Your task to perform on an android device: toggle airplane mode Image 0: 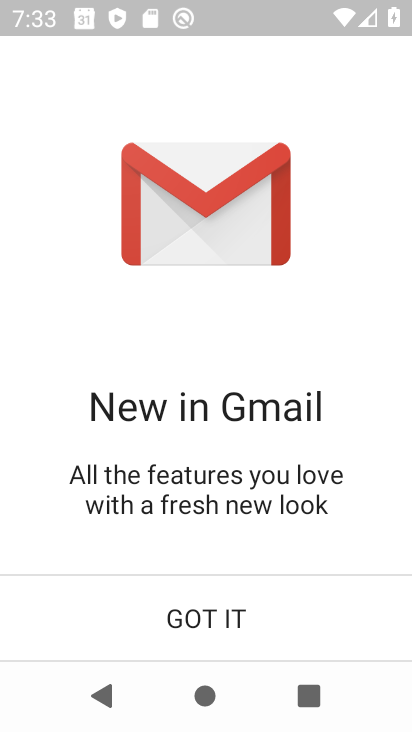
Step 0: press home button
Your task to perform on an android device: toggle airplane mode Image 1: 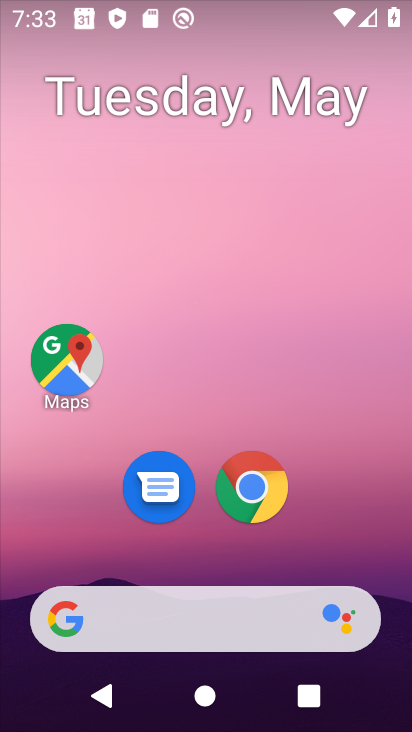
Step 1: drag from (314, 560) to (342, 286)
Your task to perform on an android device: toggle airplane mode Image 2: 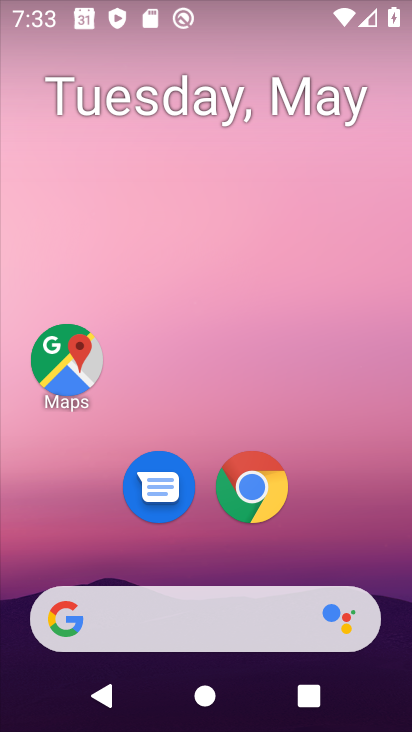
Step 2: drag from (389, 561) to (393, 243)
Your task to perform on an android device: toggle airplane mode Image 3: 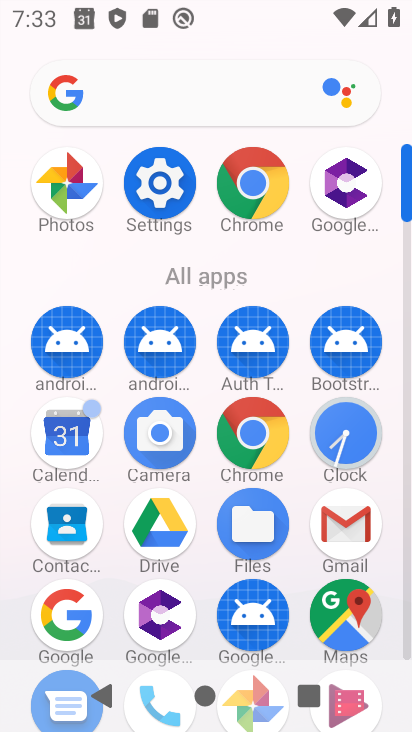
Step 3: click (158, 206)
Your task to perform on an android device: toggle airplane mode Image 4: 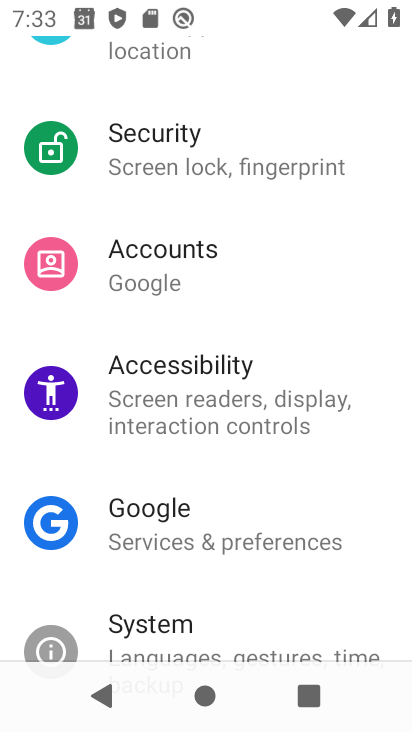
Step 4: drag from (311, 292) to (322, 383)
Your task to perform on an android device: toggle airplane mode Image 5: 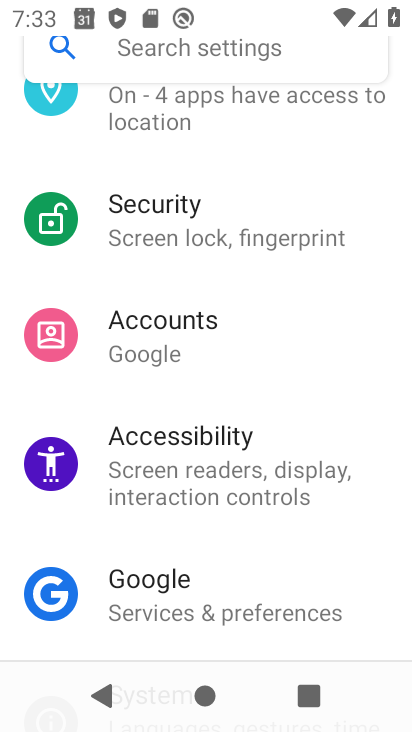
Step 5: drag from (361, 265) to (364, 364)
Your task to perform on an android device: toggle airplane mode Image 6: 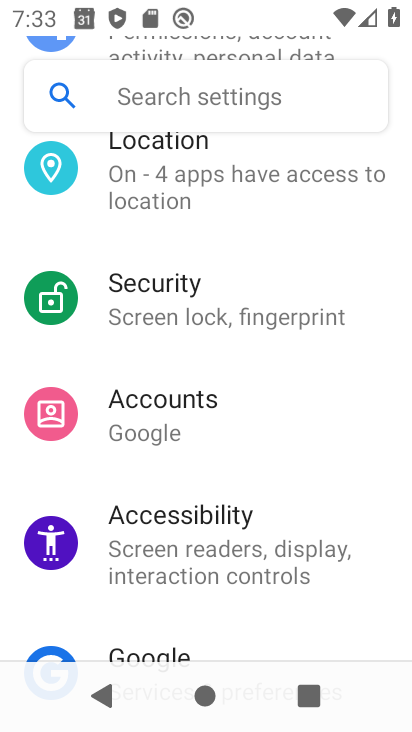
Step 6: drag from (363, 239) to (361, 375)
Your task to perform on an android device: toggle airplane mode Image 7: 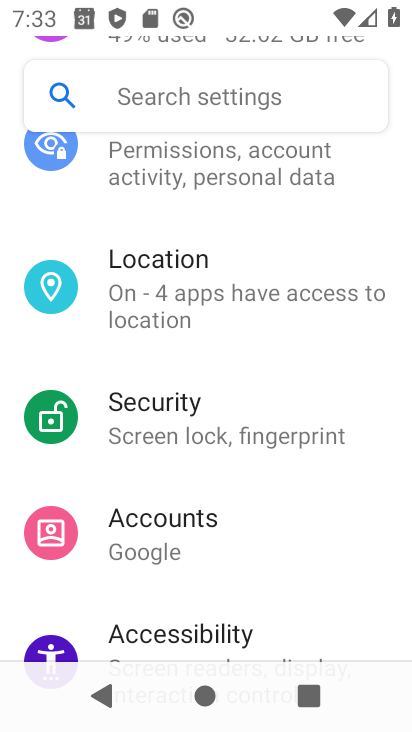
Step 7: drag from (373, 247) to (375, 402)
Your task to perform on an android device: toggle airplane mode Image 8: 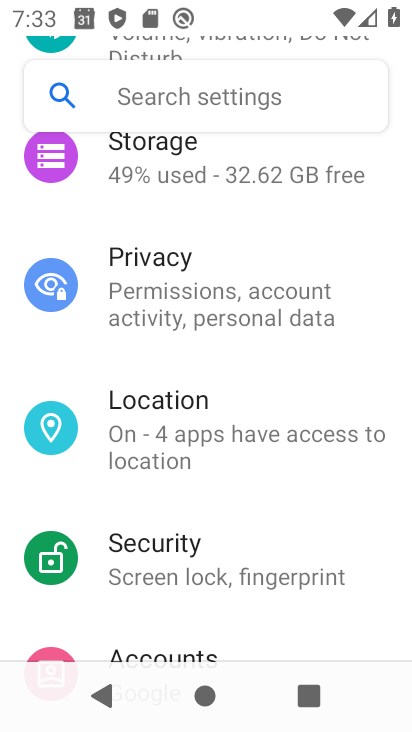
Step 8: drag from (367, 275) to (373, 380)
Your task to perform on an android device: toggle airplane mode Image 9: 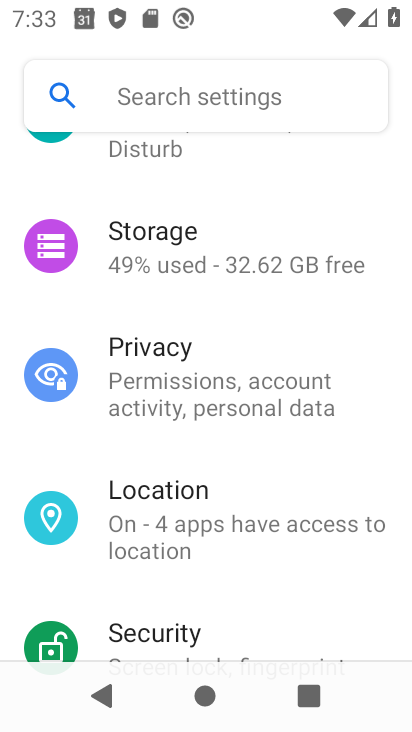
Step 9: drag from (372, 211) to (357, 346)
Your task to perform on an android device: toggle airplane mode Image 10: 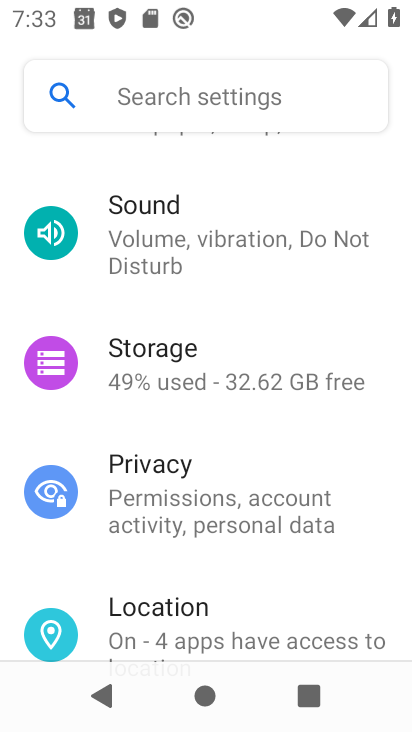
Step 10: drag from (383, 210) to (387, 321)
Your task to perform on an android device: toggle airplane mode Image 11: 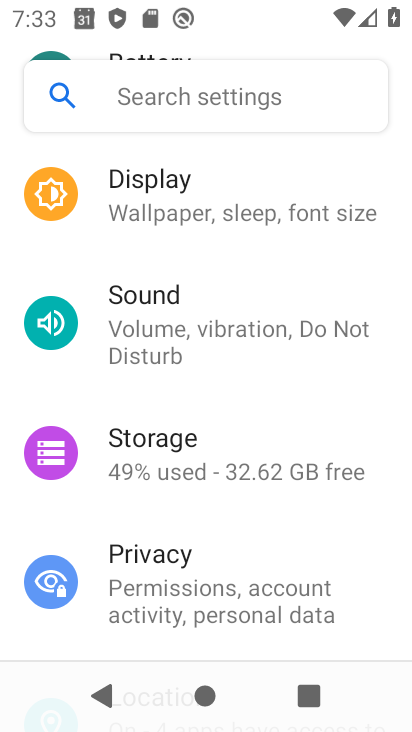
Step 11: drag from (389, 243) to (387, 346)
Your task to perform on an android device: toggle airplane mode Image 12: 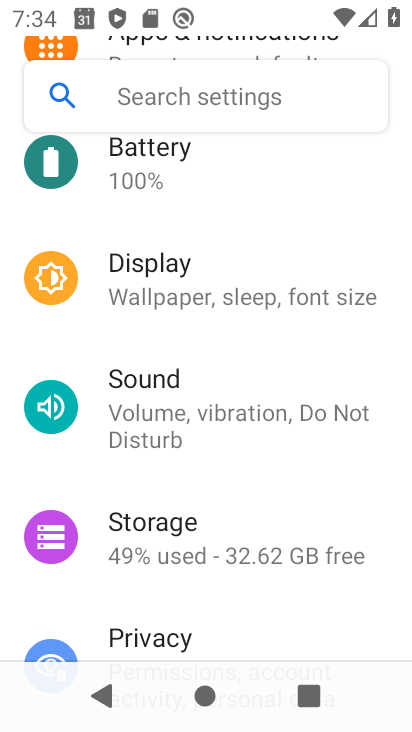
Step 12: drag from (381, 230) to (380, 348)
Your task to perform on an android device: toggle airplane mode Image 13: 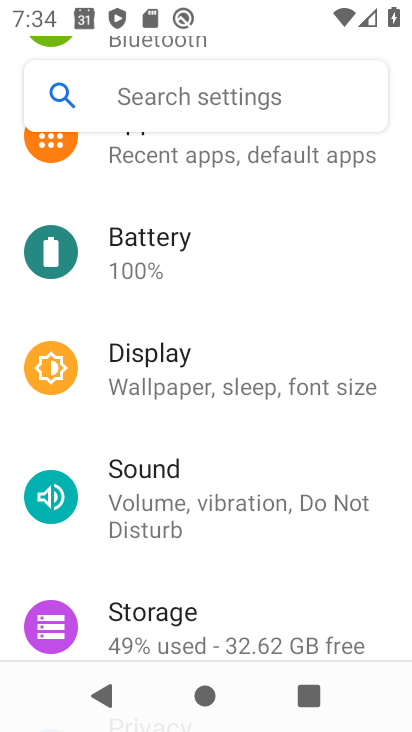
Step 13: drag from (376, 239) to (375, 362)
Your task to perform on an android device: toggle airplane mode Image 14: 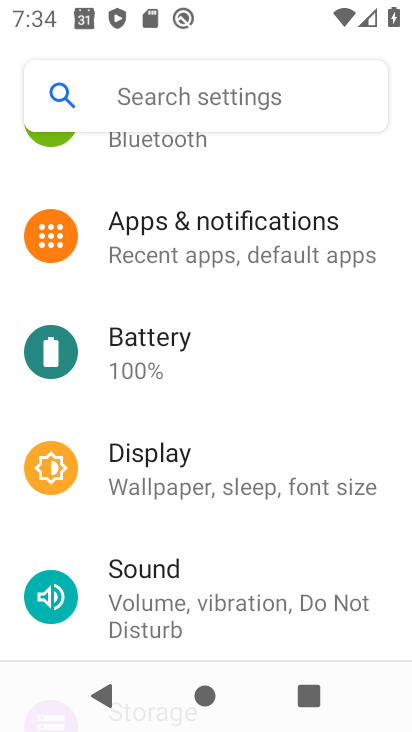
Step 14: drag from (385, 212) to (382, 385)
Your task to perform on an android device: toggle airplane mode Image 15: 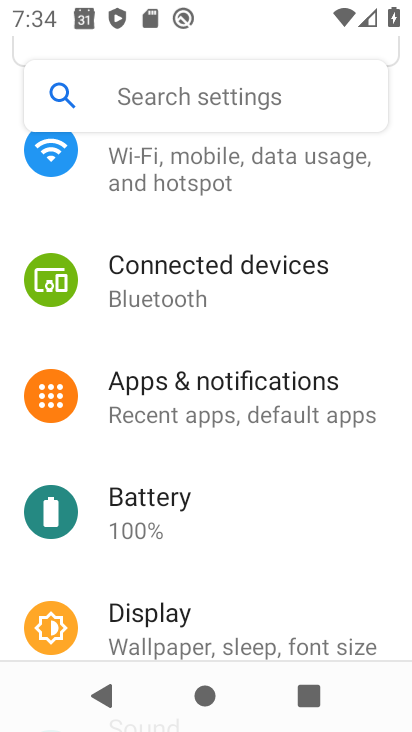
Step 15: drag from (374, 212) to (355, 443)
Your task to perform on an android device: toggle airplane mode Image 16: 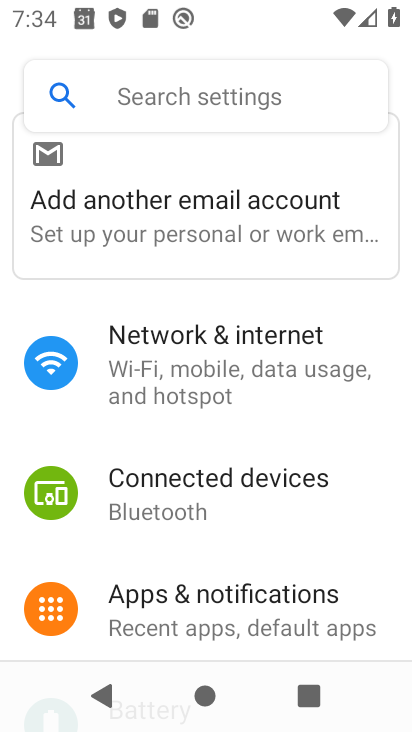
Step 16: click (270, 376)
Your task to perform on an android device: toggle airplane mode Image 17: 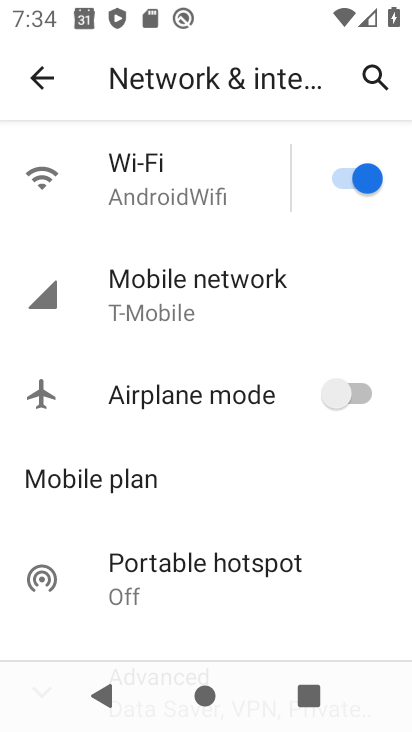
Step 17: click (329, 394)
Your task to perform on an android device: toggle airplane mode Image 18: 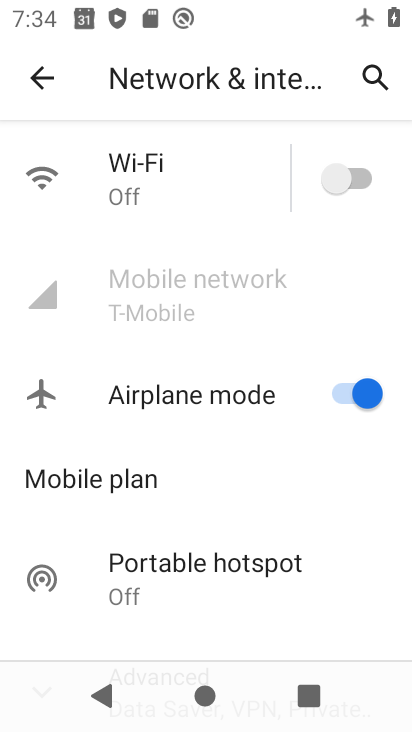
Step 18: task complete